Your task to perform on an android device: snooze an email in the gmail app Image 0: 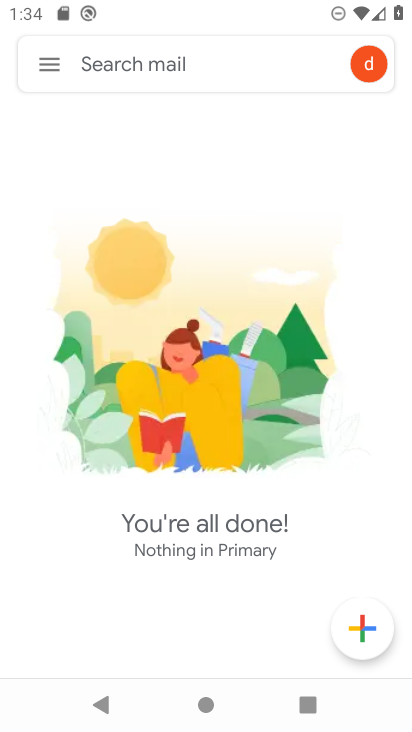
Step 0: press home button
Your task to perform on an android device: snooze an email in the gmail app Image 1: 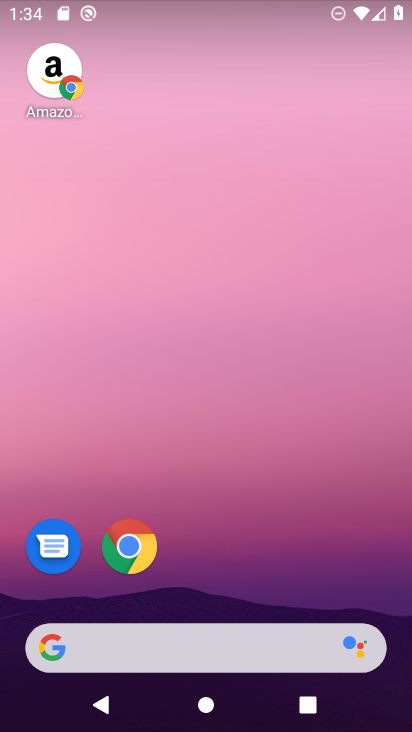
Step 1: drag from (298, 674) to (215, 226)
Your task to perform on an android device: snooze an email in the gmail app Image 2: 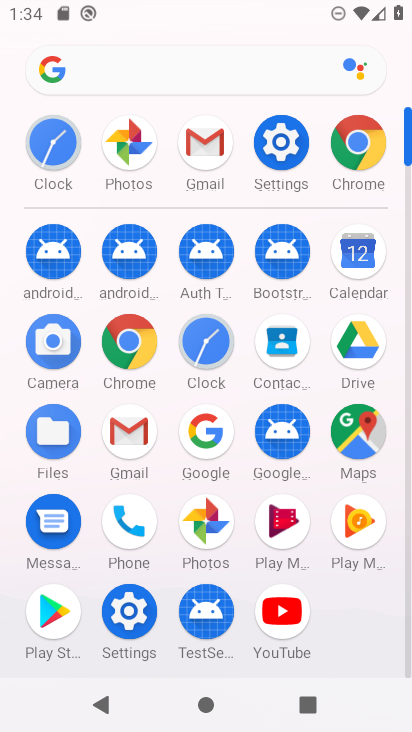
Step 2: click (121, 428)
Your task to perform on an android device: snooze an email in the gmail app Image 3: 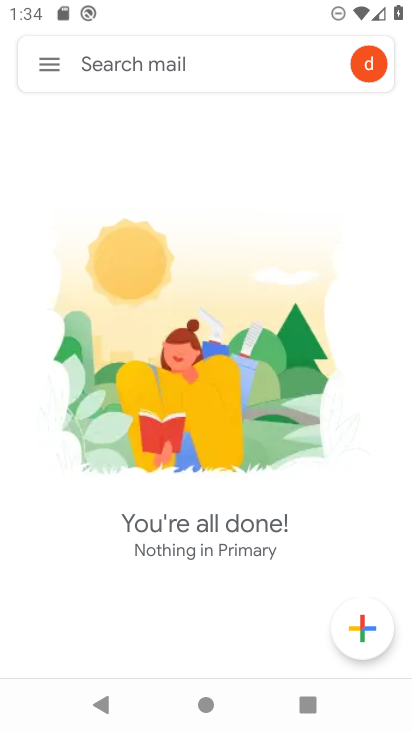
Step 3: click (42, 65)
Your task to perform on an android device: snooze an email in the gmail app Image 4: 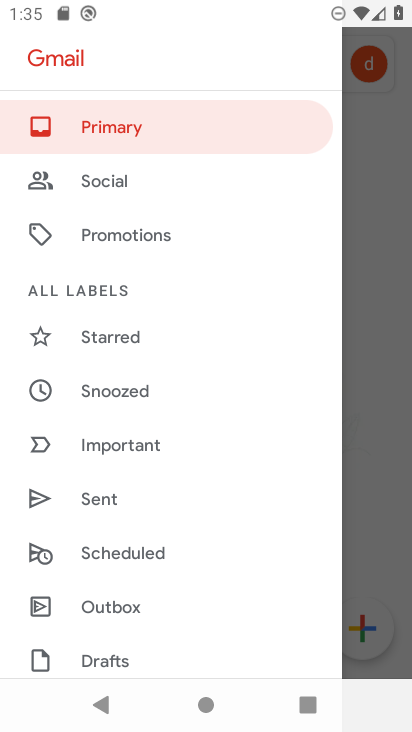
Step 4: click (148, 395)
Your task to perform on an android device: snooze an email in the gmail app Image 5: 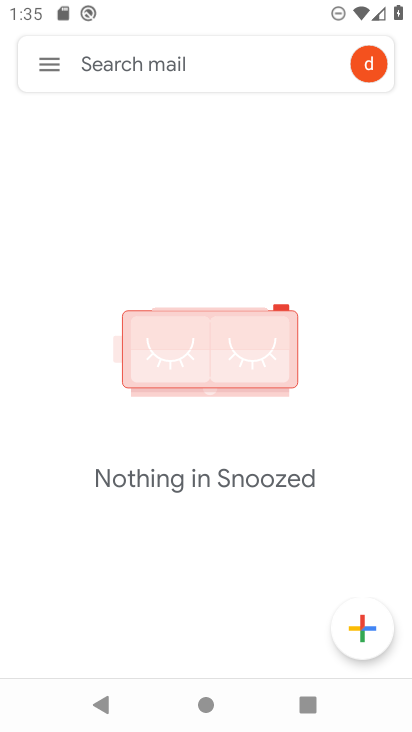
Step 5: task complete